Your task to perform on an android device: Go to location settings Image 0: 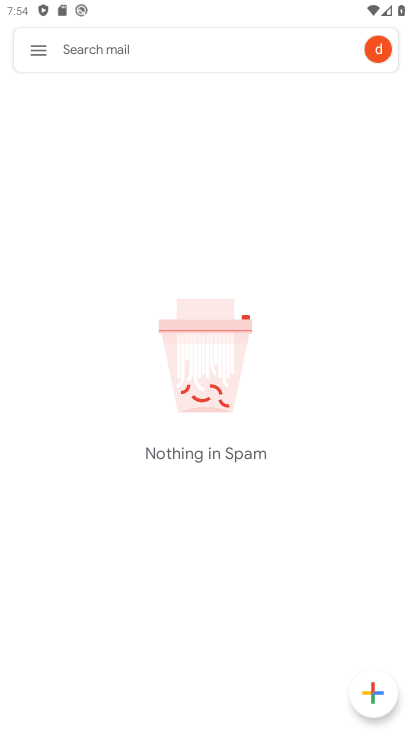
Step 0: press back button
Your task to perform on an android device: Go to location settings Image 1: 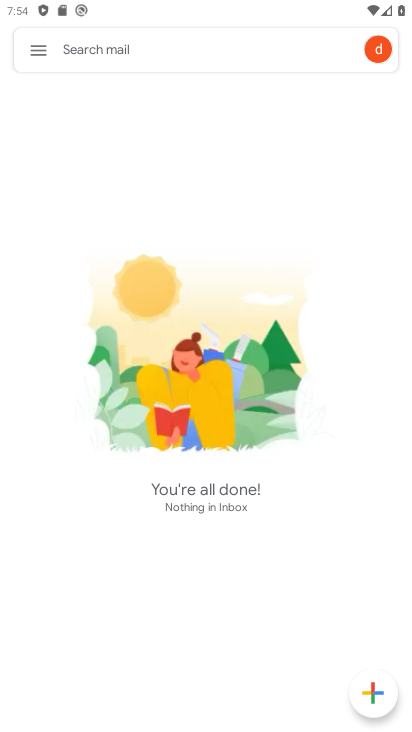
Step 1: press back button
Your task to perform on an android device: Go to location settings Image 2: 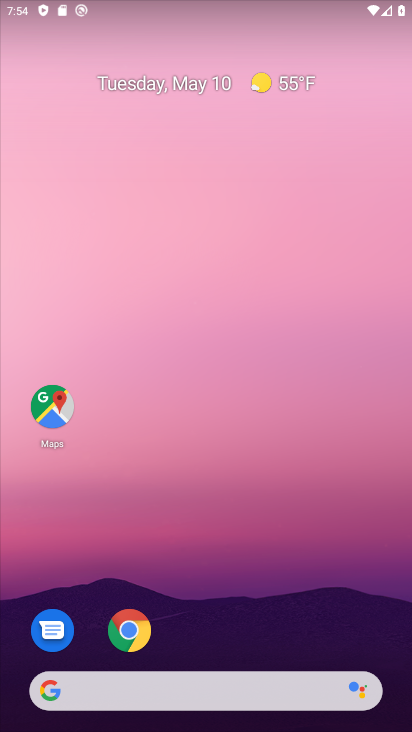
Step 2: drag from (216, 596) to (99, 2)
Your task to perform on an android device: Go to location settings Image 3: 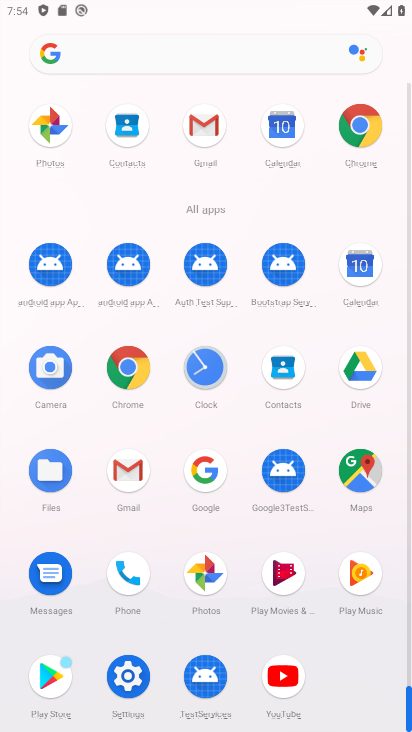
Step 3: drag from (8, 561) to (21, 180)
Your task to perform on an android device: Go to location settings Image 4: 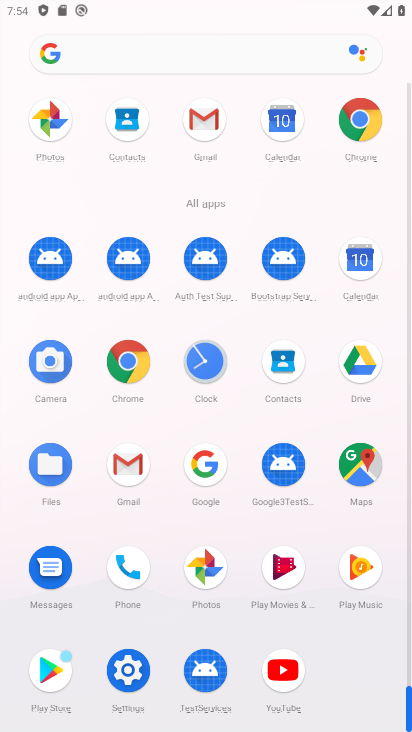
Step 4: click (125, 666)
Your task to perform on an android device: Go to location settings Image 5: 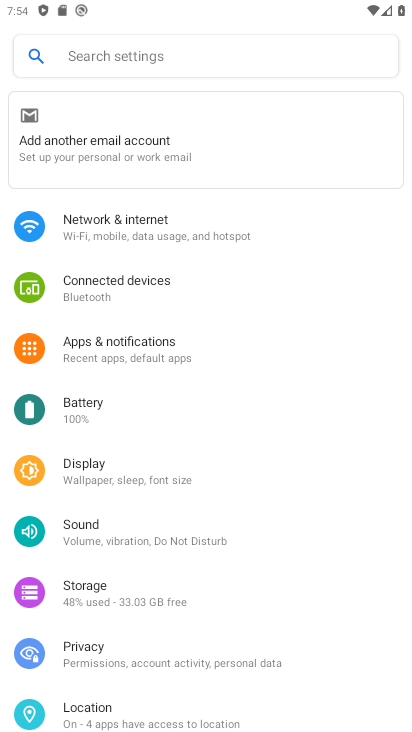
Step 5: click (115, 705)
Your task to perform on an android device: Go to location settings Image 6: 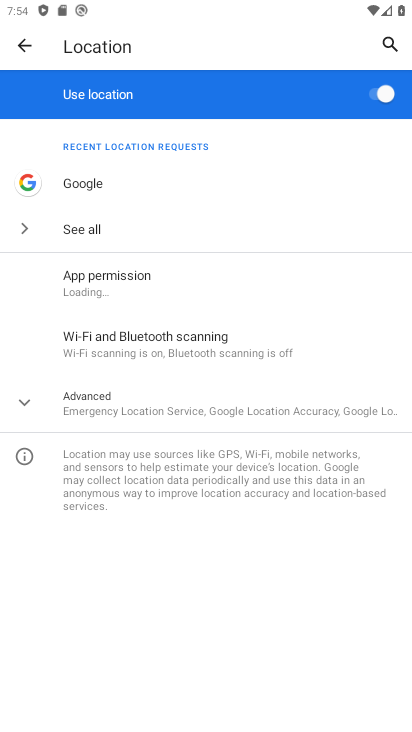
Step 6: click (30, 408)
Your task to perform on an android device: Go to location settings Image 7: 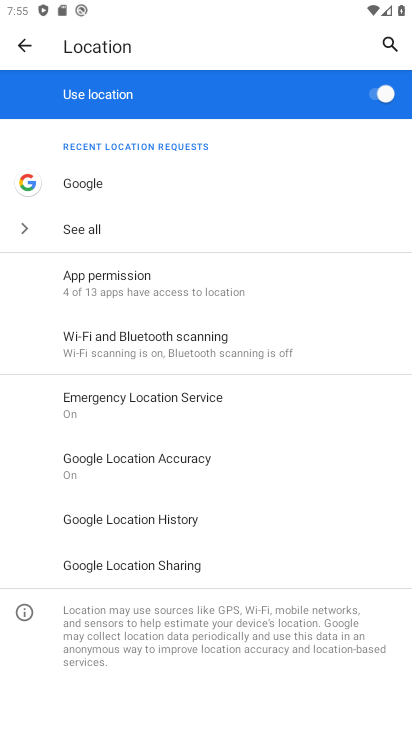
Step 7: task complete